Your task to perform on an android device: allow cookies in the chrome app Image 0: 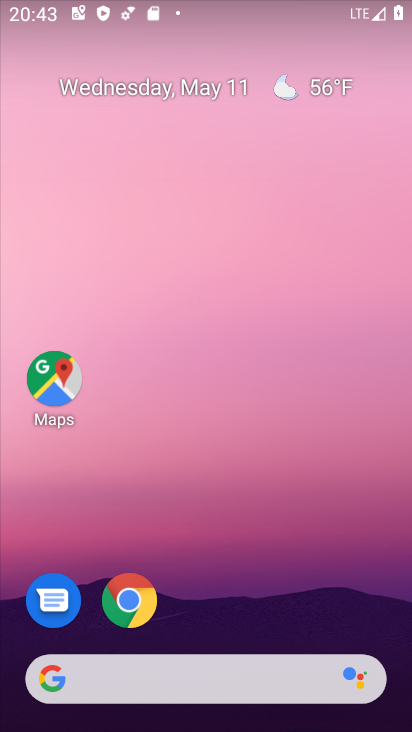
Step 0: click (127, 601)
Your task to perform on an android device: allow cookies in the chrome app Image 1: 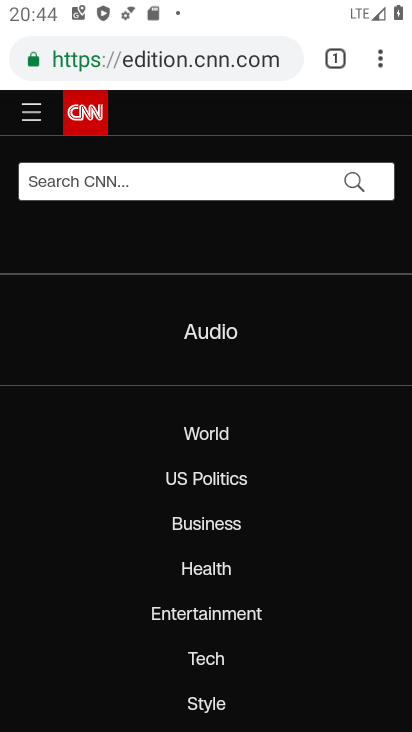
Step 1: click (382, 57)
Your task to perform on an android device: allow cookies in the chrome app Image 2: 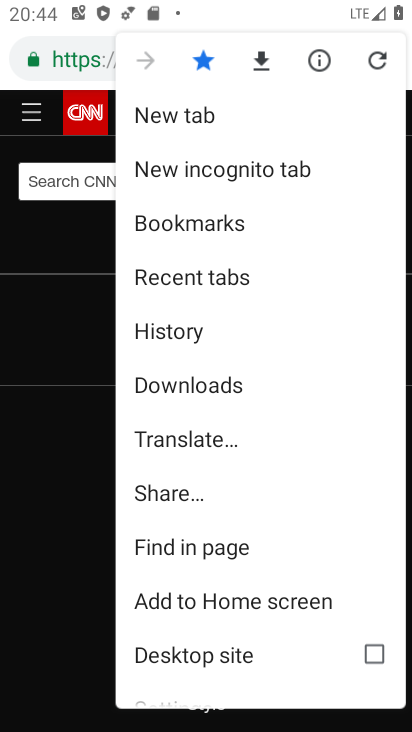
Step 2: drag from (242, 478) to (306, 254)
Your task to perform on an android device: allow cookies in the chrome app Image 3: 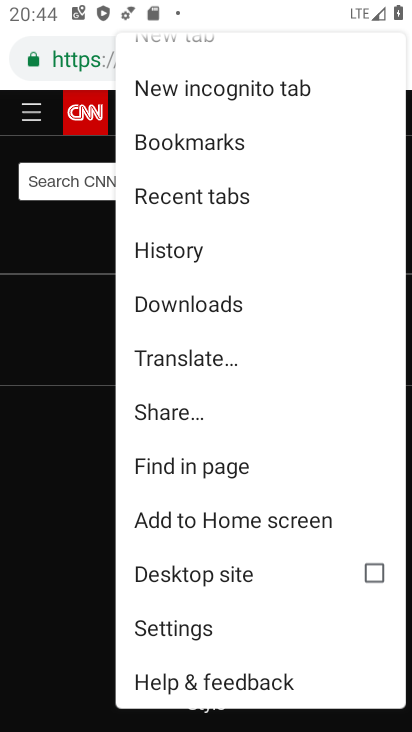
Step 3: click (179, 628)
Your task to perform on an android device: allow cookies in the chrome app Image 4: 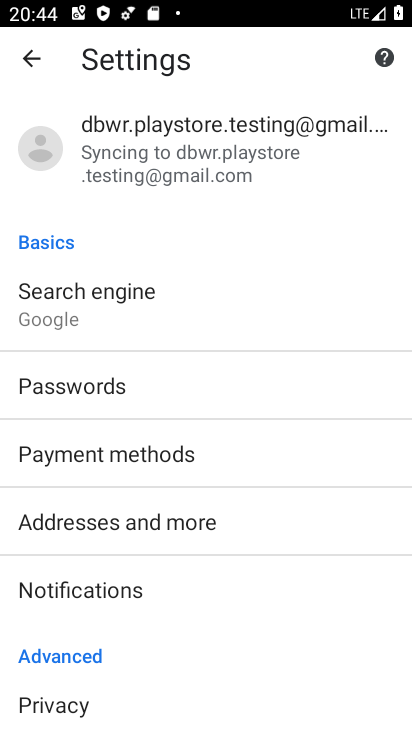
Step 4: drag from (127, 647) to (226, 511)
Your task to perform on an android device: allow cookies in the chrome app Image 5: 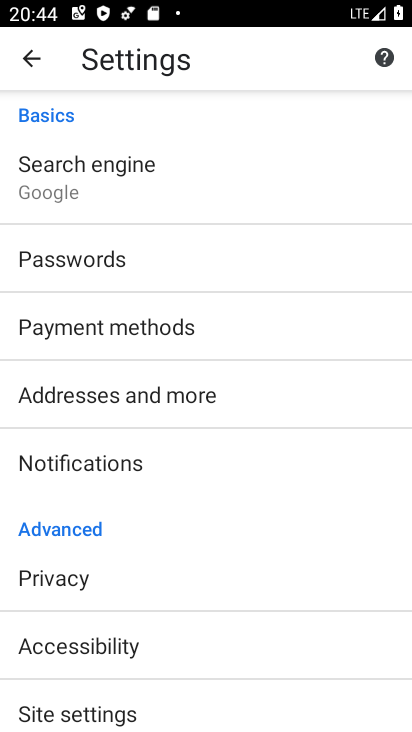
Step 5: drag from (156, 564) to (251, 454)
Your task to perform on an android device: allow cookies in the chrome app Image 6: 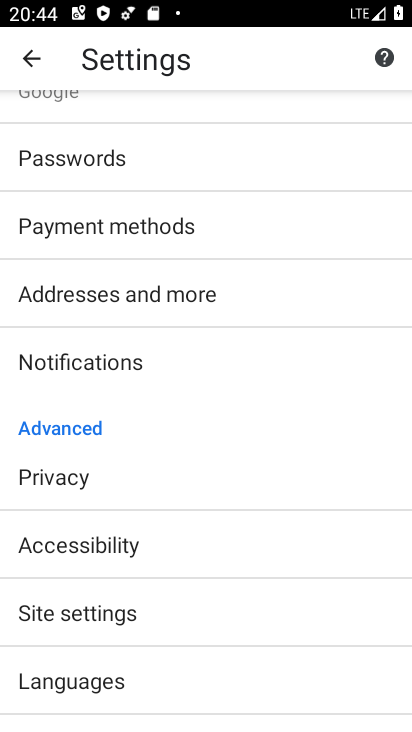
Step 6: drag from (170, 563) to (251, 451)
Your task to perform on an android device: allow cookies in the chrome app Image 7: 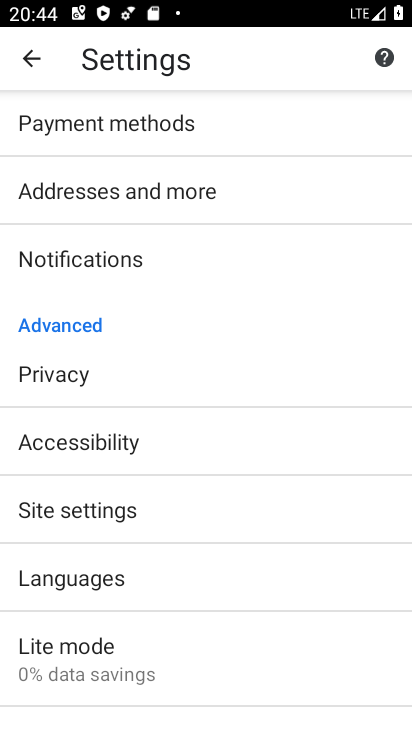
Step 7: click (104, 512)
Your task to perform on an android device: allow cookies in the chrome app Image 8: 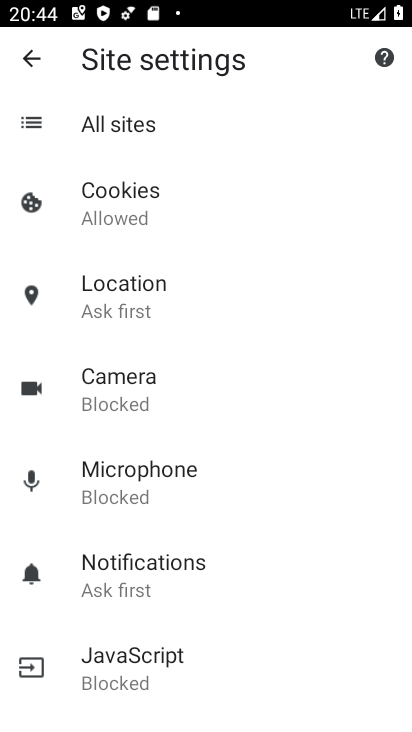
Step 8: click (135, 203)
Your task to perform on an android device: allow cookies in the chrome app Image 9: 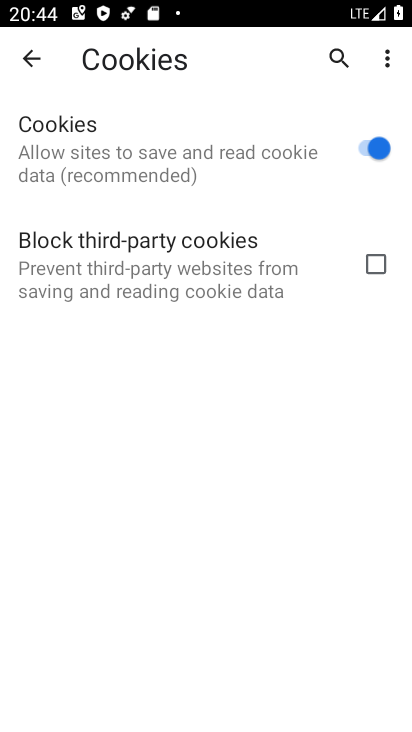
Step 9: click (374, 262)
Your task to perform on an android device: allow cookies in the chrome app Image 10: 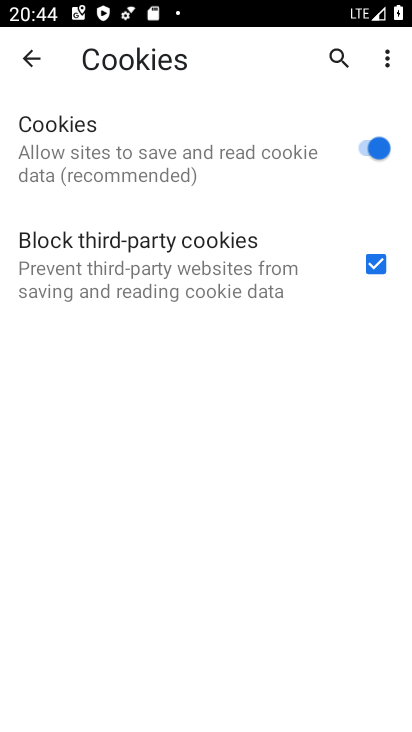
Step 10: task complete